Your task to perform on an android device: turn on wifi Image 0: 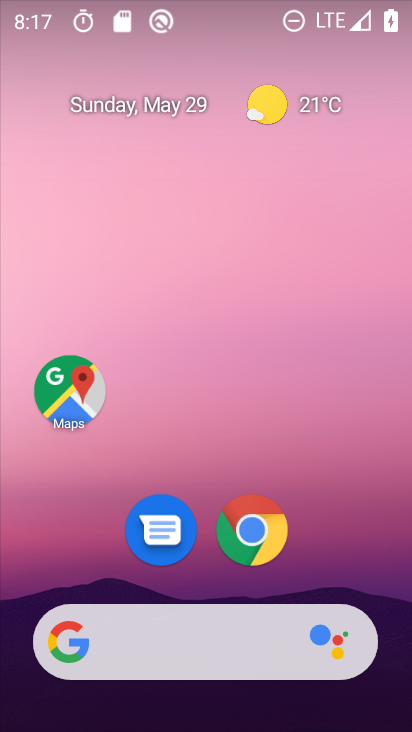
Step 0: press home button
Your task to perform on an android device: turn on wifi Image 1: 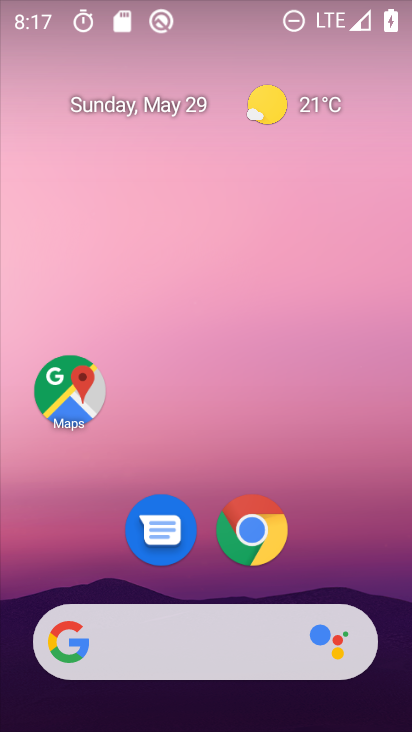
Step 1: drag from (236, 673) to (205, 97)
Your task to perform on an android device: turn on wifi Image 2: 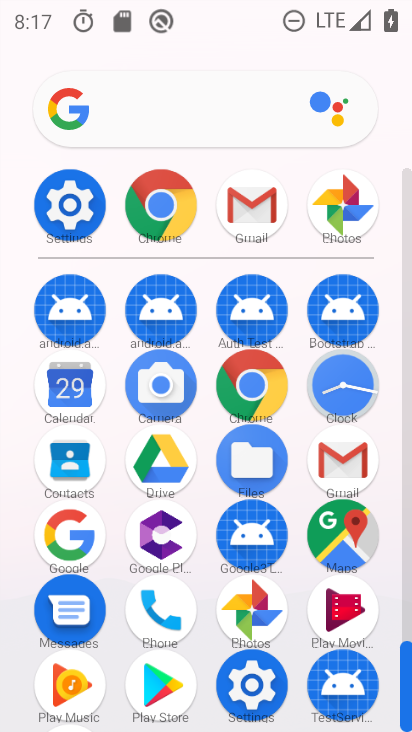
Step 2: click (88, 199)
Your task to perform on an android device: turn on wifi Image 3: 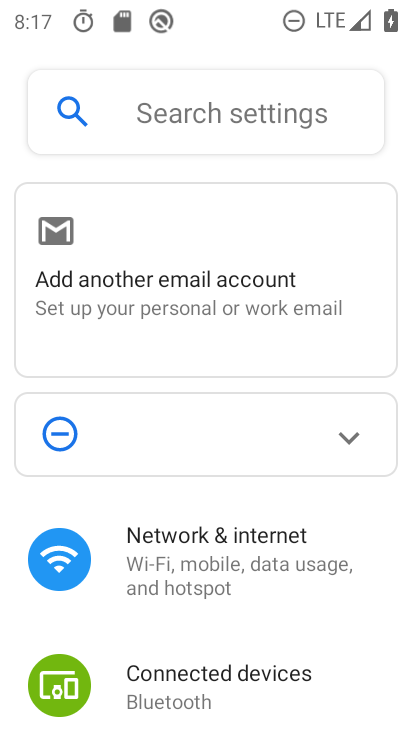
Step 3: click (202, 562)
Your task to perform on an android device: turn on wifi Image 4: 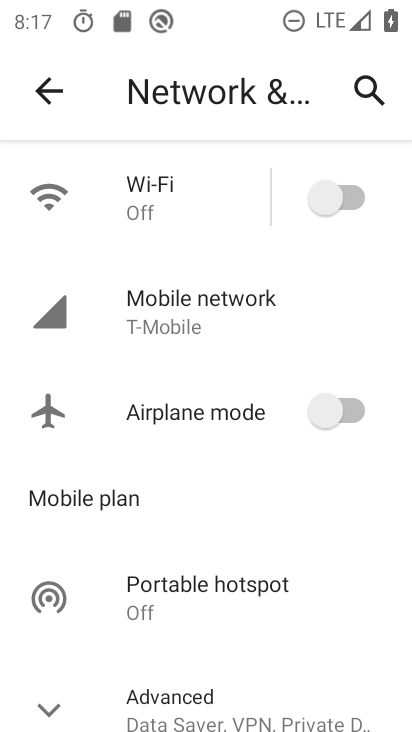
Step 4: click (339, 202)
Your task to perform on an android device: turn on wifi Image 5: 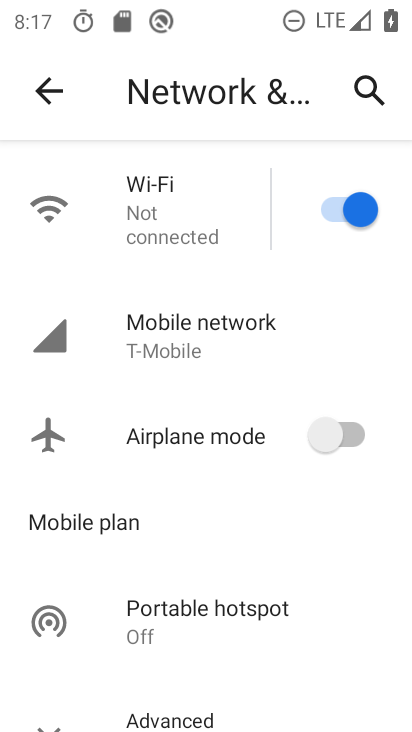
Step 5: task complete